Your task to perform on an android device: delete browsing data in the chrome app Image 0: 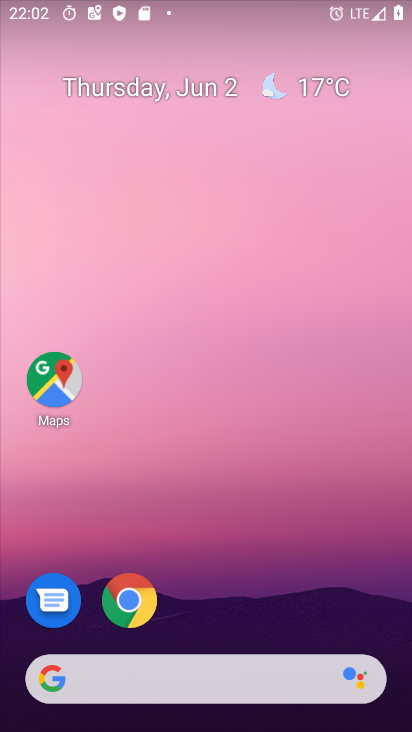
Step 0: drag from (345, 617) to (366, 140)
Your task to perform on an android device: delete browsing data in the chrome app Image 1: 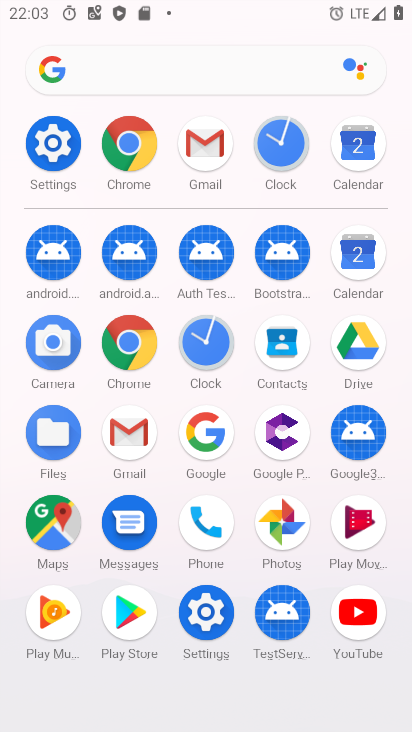
Step 1: click (140, 353)
Your task to perform on an android device: delete browsing data in the chrome app Image 2: 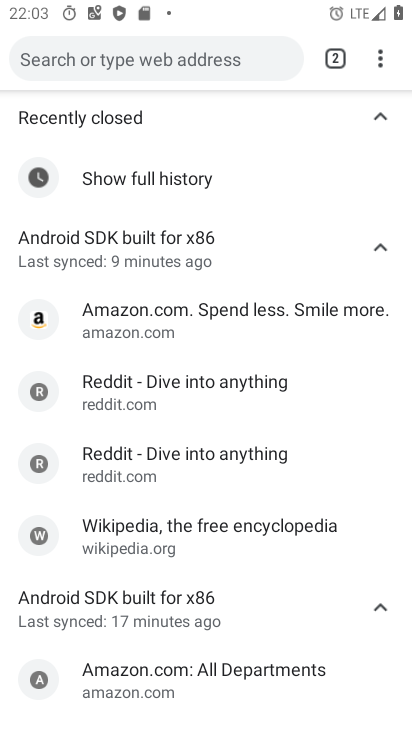
Step 2: click (379, 63)
Your task to perform on an android device: delete browsing data in the chrome app Image 3: 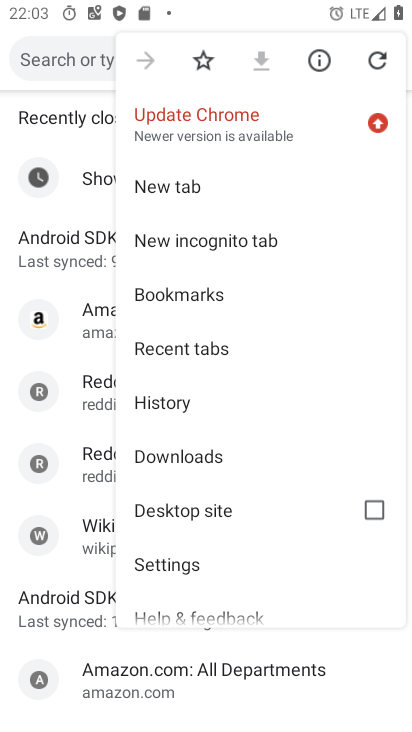
Step 3: drag from (281, 424) to (297, 273)
Your task to perform on an android device: delete browsing data in the chrome app Image 4: 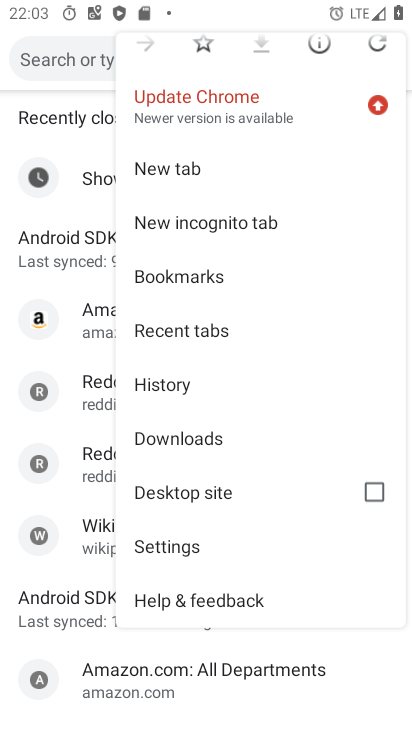
Step 4: click (184, 552)
Your task to perform on an android device: delete browsing data in the chrome app Image 5: 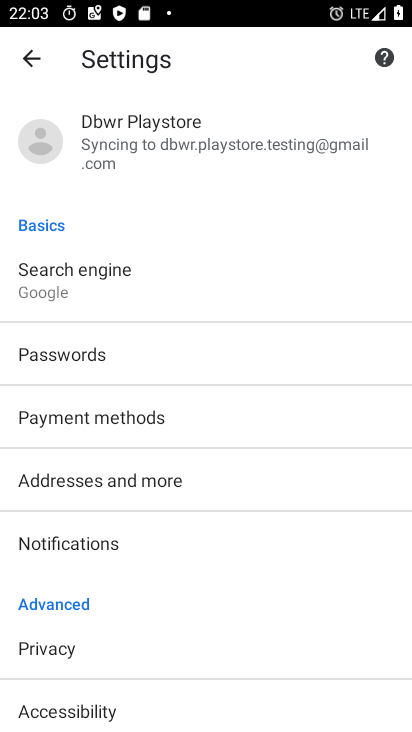
Step 5: drag from (322, 522) to (336, 399)
Your task to perform on an android device: delete browsing data in the chrome app Image 6: 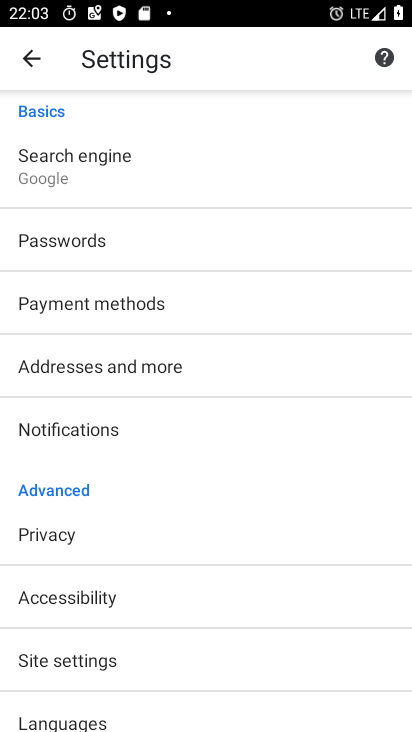
Step 6: drag from (318, 588) to (331, 286)
Your task to perform on an android device: delete browsing data in the chrome app Image 7: 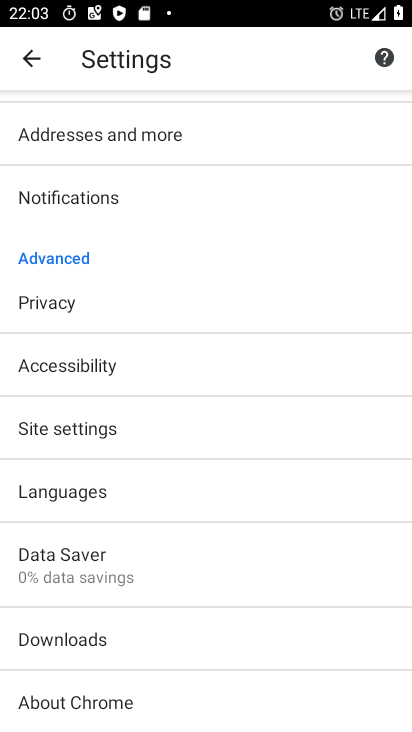
Step 7: click (121, 301)
Your task to perform on an android device: delete browsing data in the chrome app Image 8: 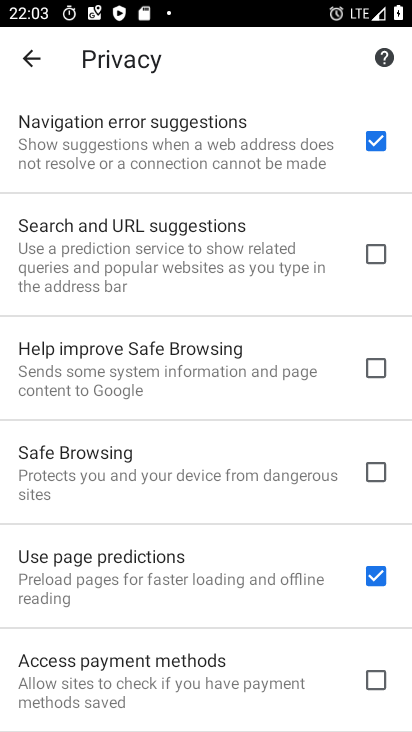
Step 8: drag from (248, 518) to (258, 384)
Your task to perform on an android device: delete browsing data in the chrome app Image 9: 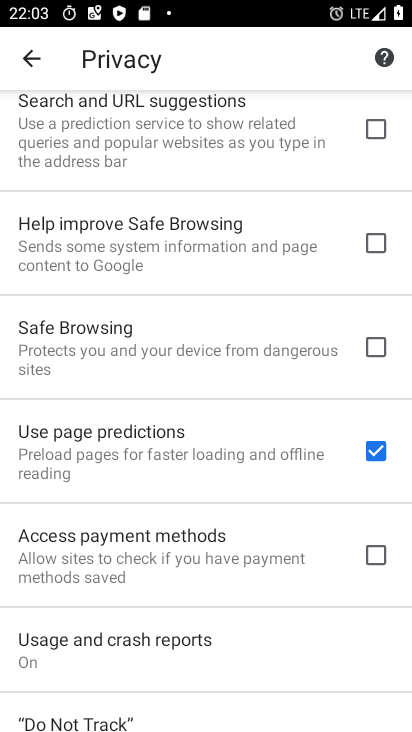
Step 9: drag from (295, 609) to (316, 491)
Your task to perform on an android device: delete browsing data in the chrome app Image 10: 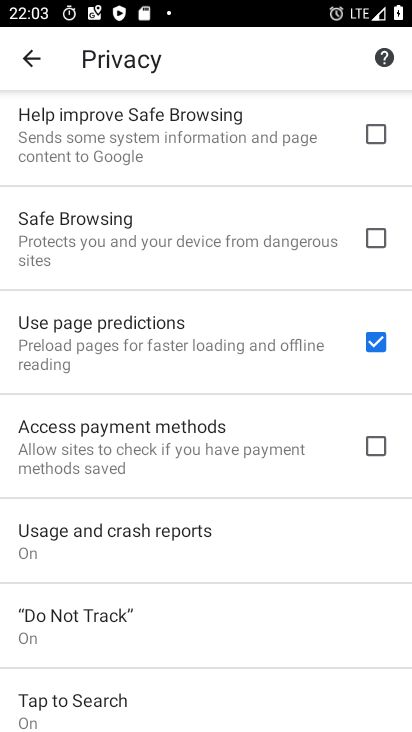
Step 10: drag from (298, 616) to (301, 439)
Your task to perform on an android device: delete browsing data in the chrome app Image 11: 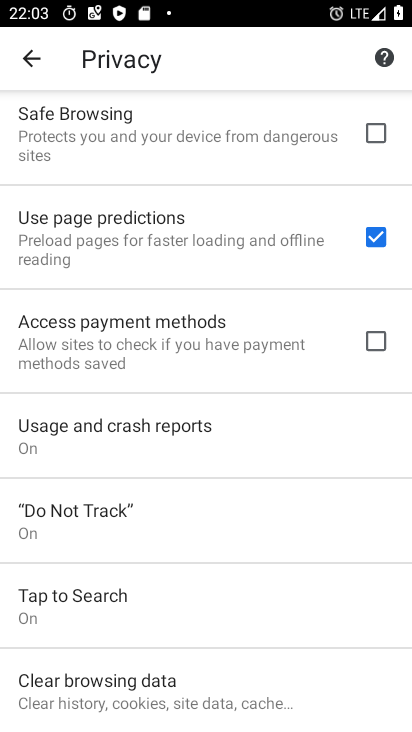
Step 11: click (208, 688)
Your task to perform on an android device: delete browsing data in the chrome app Image 12: 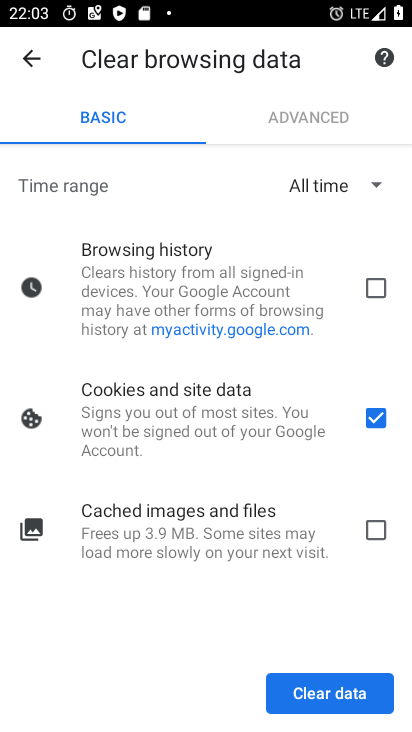
Step 12: click (377, 538)
Your task to perform on an android device: delete browsing data in the chrome app Image 13: 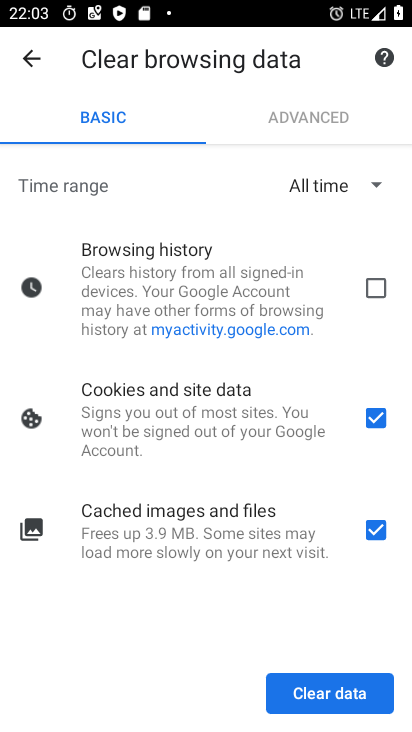
Step 13: click (381, 285)
Your task to perform on an android device: delete browsing data in the chrome app Image 14: 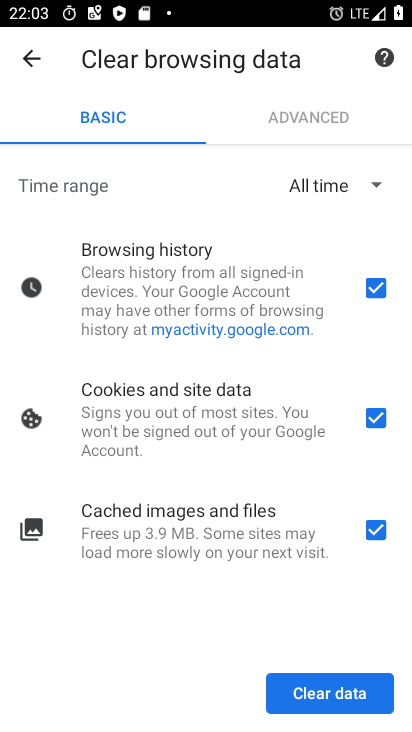
Step 14: click (361, 696)
Your task to perform on an android device: delete browsing data in the chrome app Image 15: 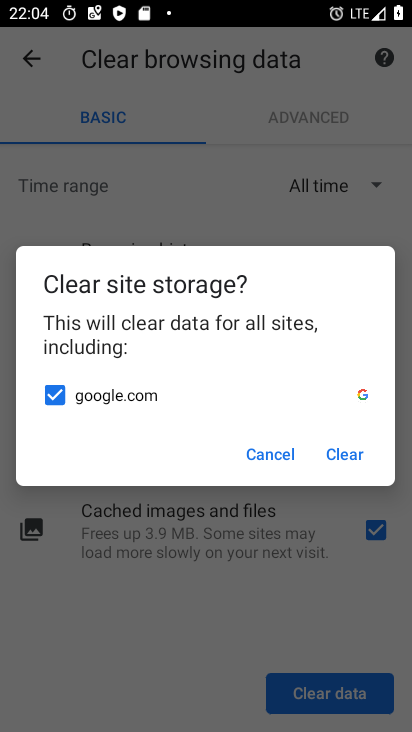
Step 15: click (360, 453)
Your task to perform on an android device: delete browsing data in the chrome app Image 16: 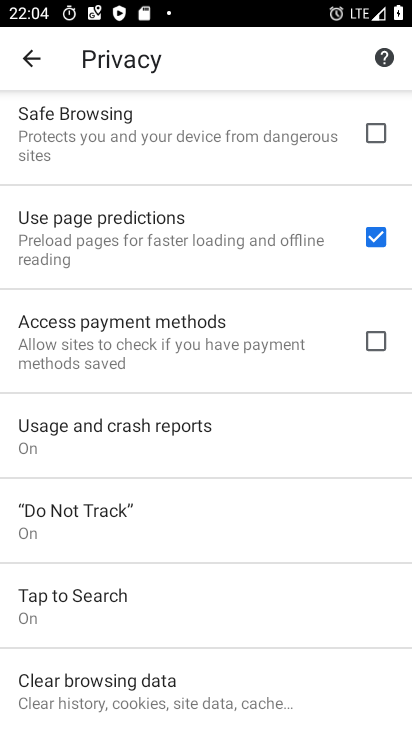
Step 16: task complete